Your task to perform on an android device: set default search engine in the chrome app Image 0: 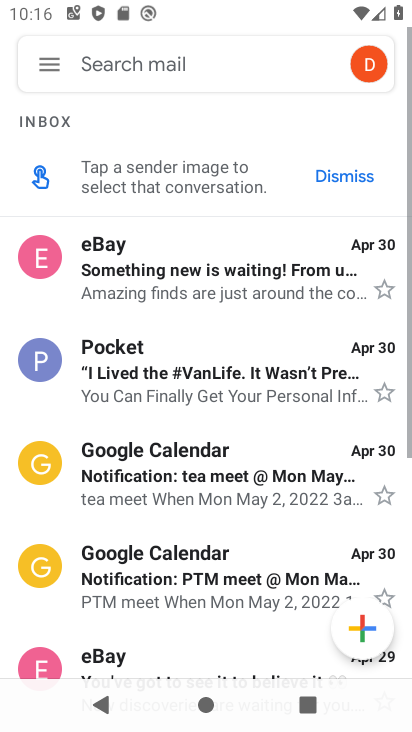
Step 0: press home button
Your task to perform on an android device: set default search engine in the chrome app Image 1: 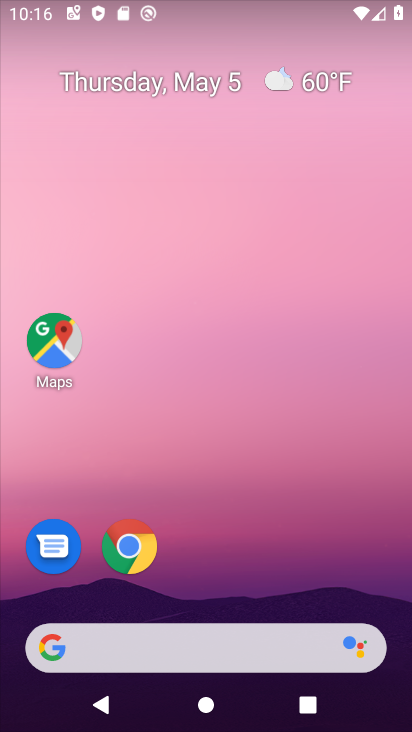
Step 1: drag from (246, 613) to (250, 206)
Your task to perform on an android device: set default search engine in the chrome app Image 2: 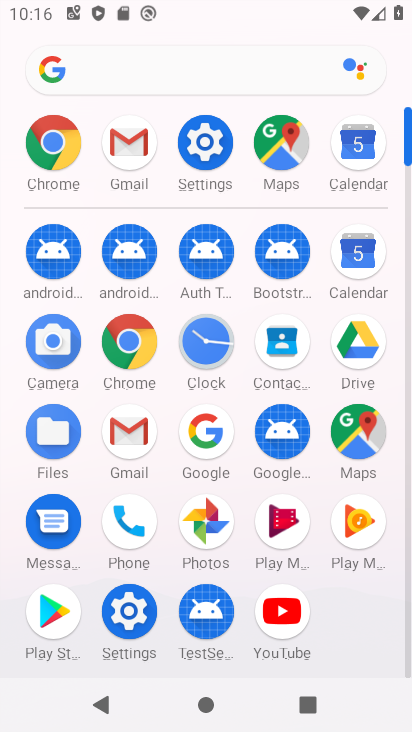
Step 2: click (132, 364)
Your task to perform on an android device: set default search engine in the chrome app Image 3: 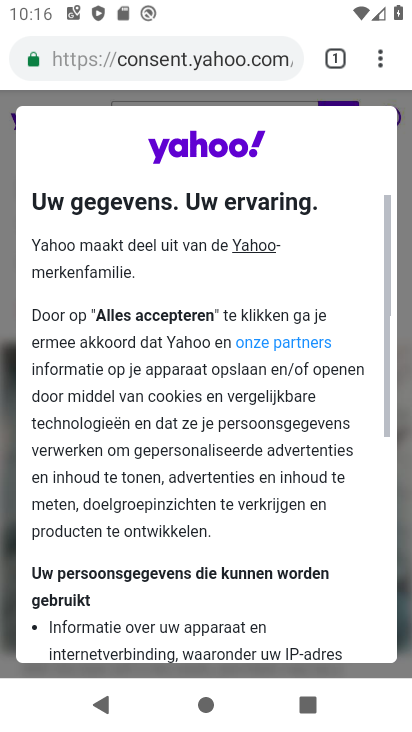
Step 3: click (375, 56)
Your task to perform on an android device: set default search engine in the chrome app Image 4: 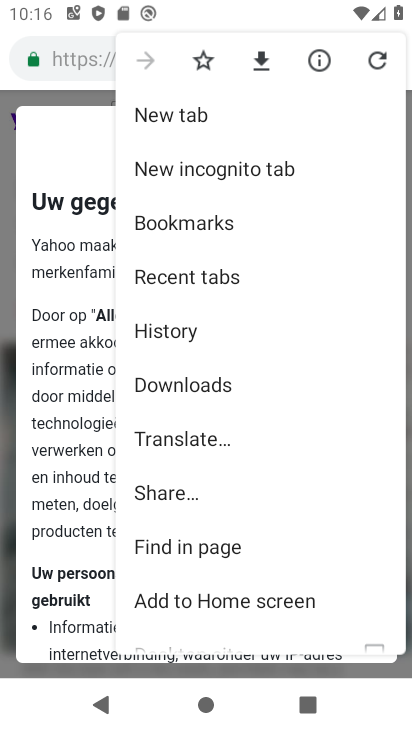
Step 4: drag from (249, 583) to (267, 289)
Your task to perform on an android device: set default search engine in the chrome app Image 5: 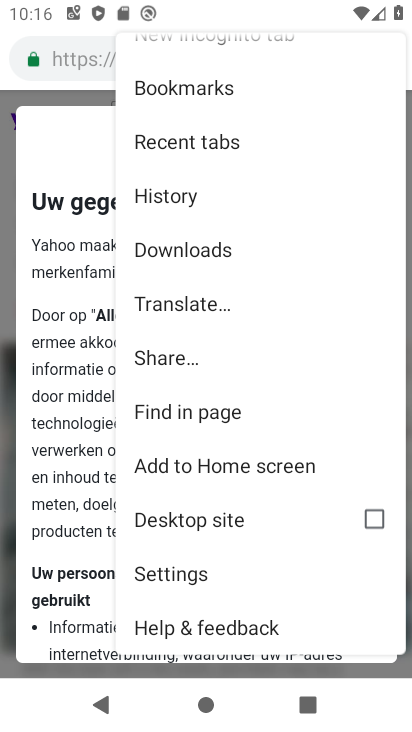
Step 5: click (252, 580)
Your task to perform on an android device: set default search engine in the chrome app Image 6: 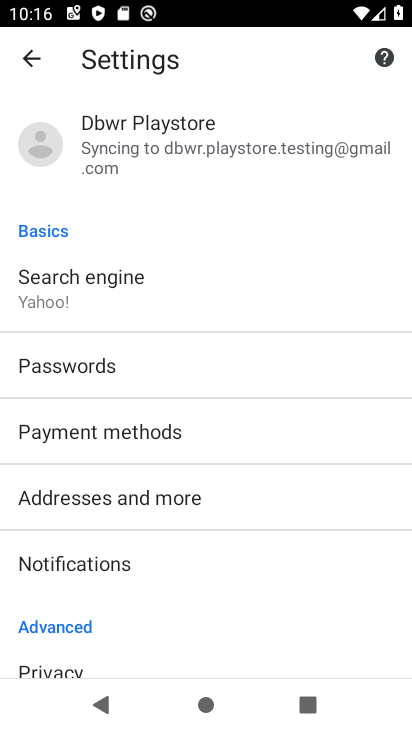
Step 6: click (61, 283)
Your task to perform on an android device: set default search engine in the chrome app Image 7: 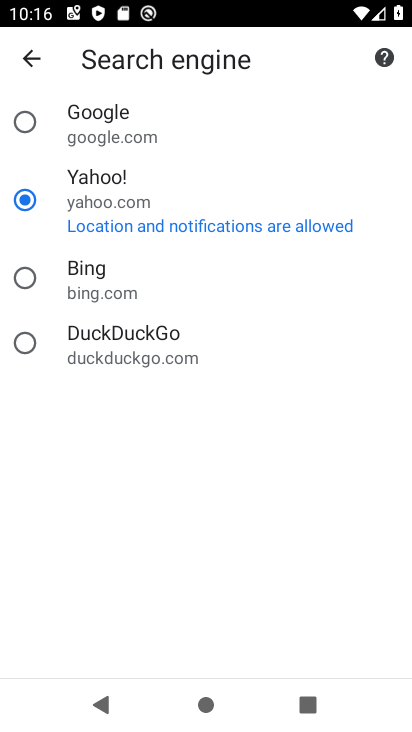
Step 7: click (115, 111)
Your task to perform on an android device: set default search engine in the chrome app Image 8: 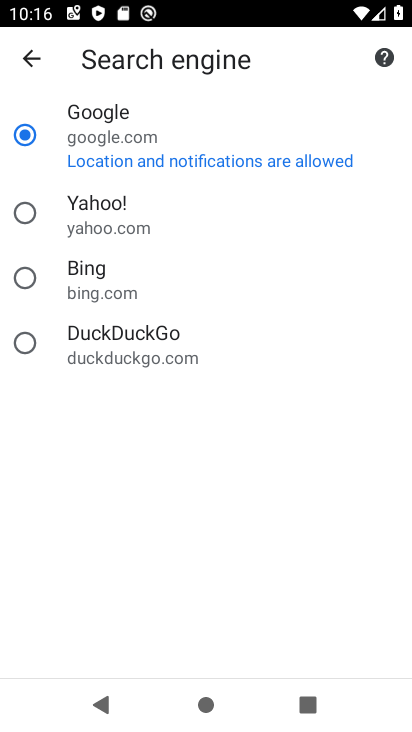
Step 8: task complete